Your task to perform on an android device: search for outdoor chairs on article.com Image 0: 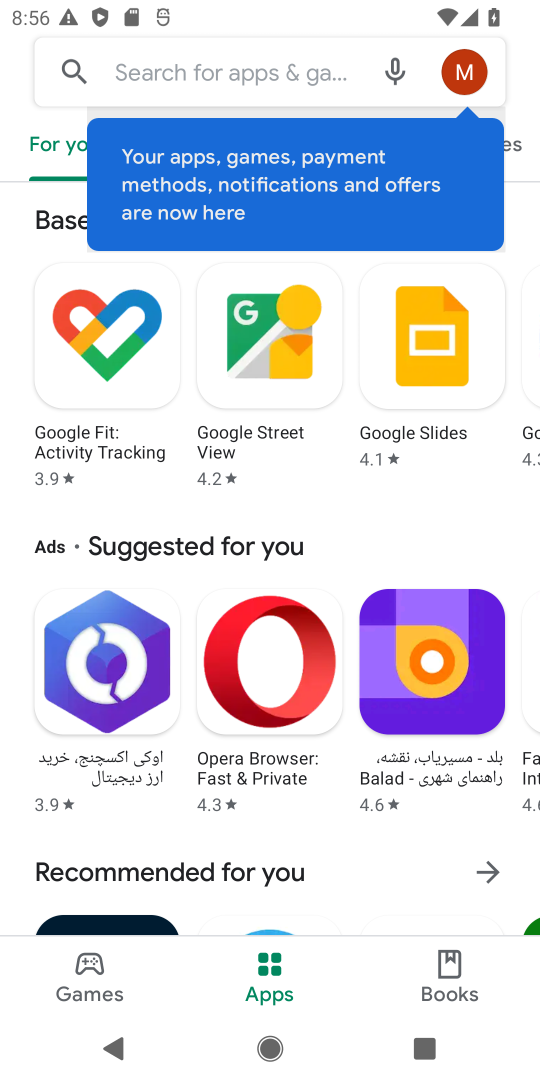
Step 0: press home button
Your task to perform on an android device: search for outdoor chairs on article.com Image 1: 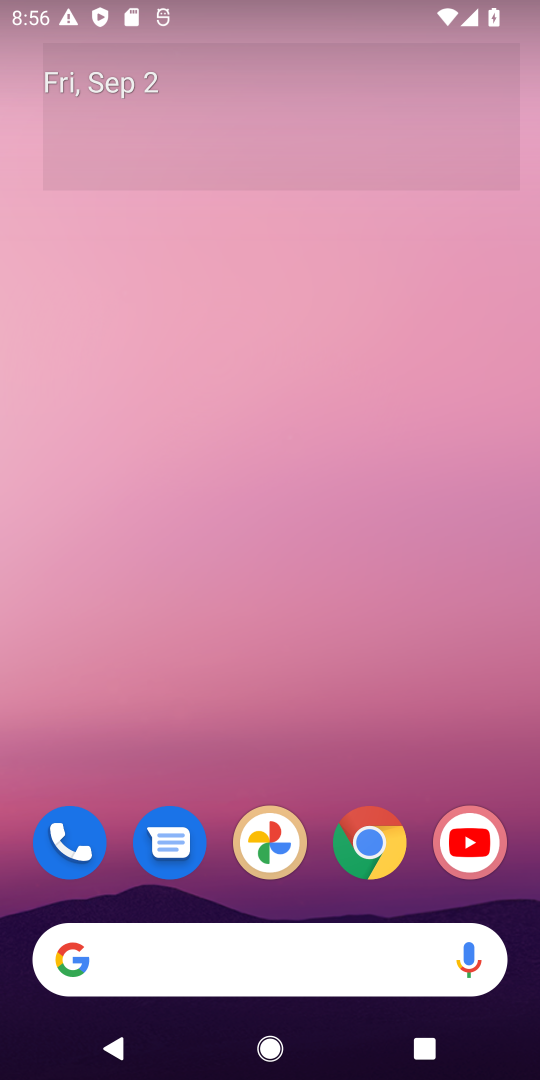
Step 1: drag from (275, 943) to (357, 11)
Your task to perform on an android device: search for outdoor chairs on article.com Image 2: 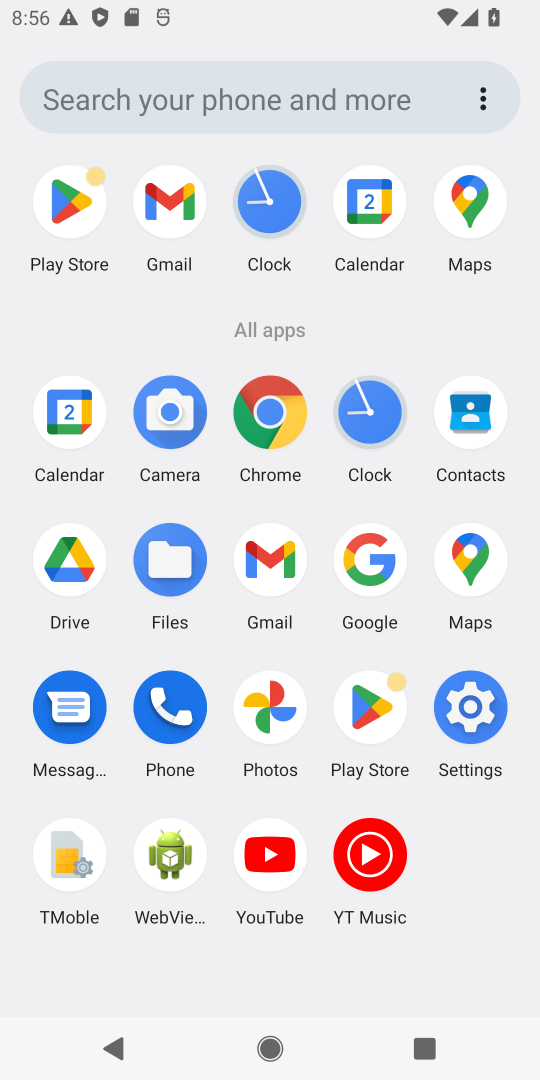
Step 2: click (270, 425)
Your task to perform on an android device: search for outdoor chairs on article.com Image 3: 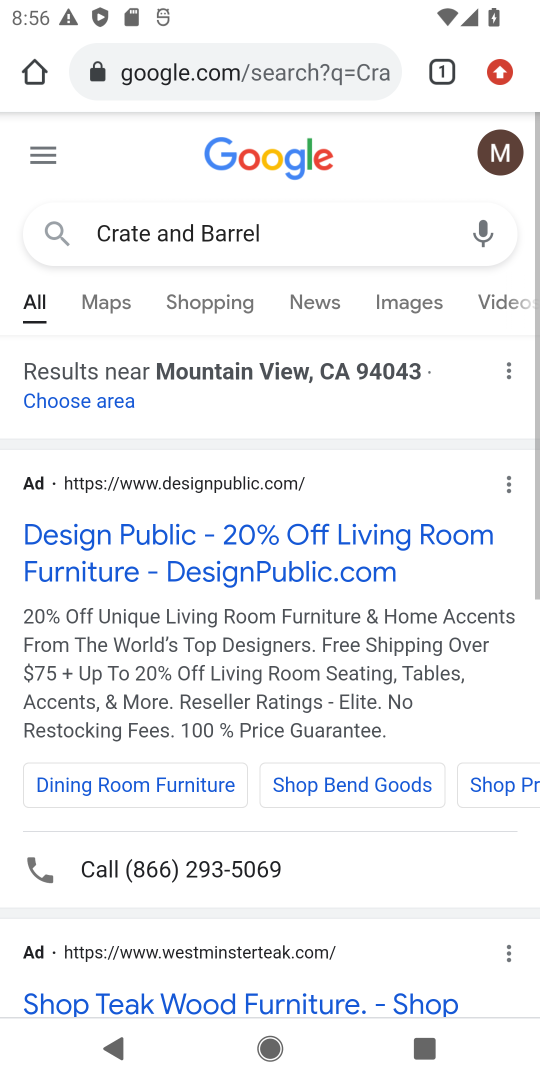
Step 3: click (269, 77)
Your task to perform on an android device: search for outdoor chairs on article.com Image 4: 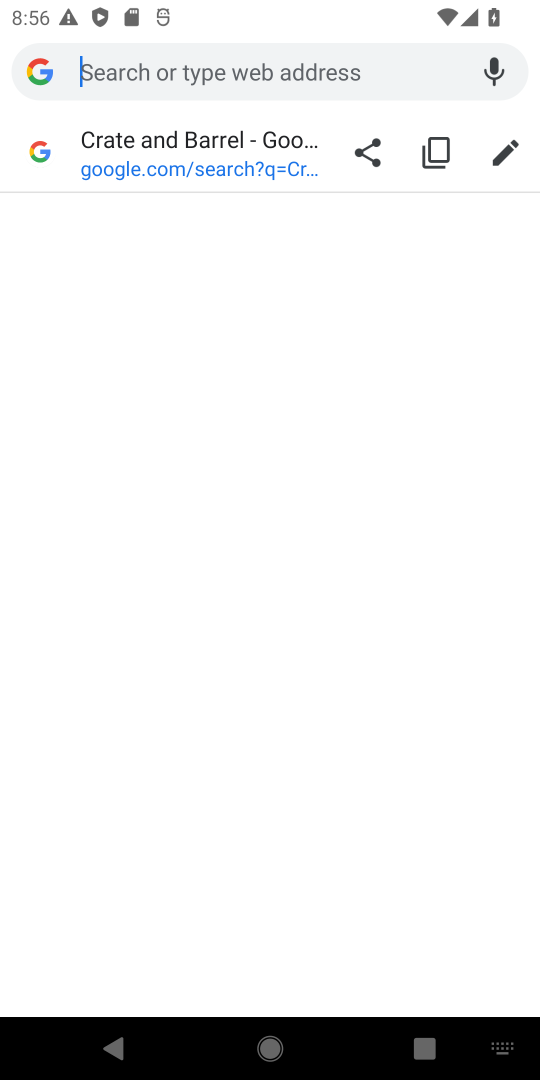
Step 4: type "article.com"
Your task to perform on an android device: search for outdoor chairs on article.com Image 5: 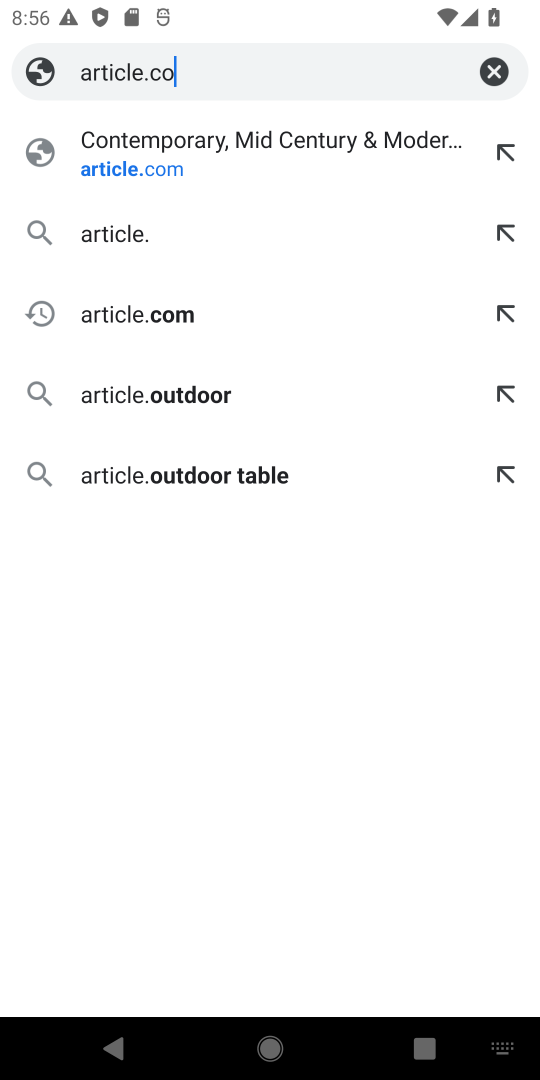
Step 5: press enter
Your task to perform on an android device: search for outdoor chairs on article.com Image 6: 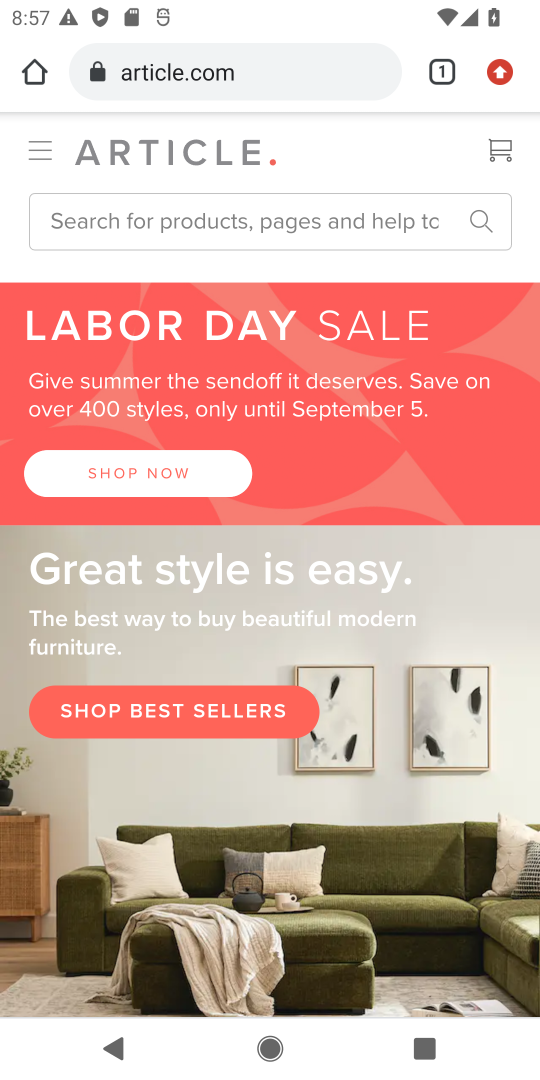
Step 6: click (219, 233)
Your task to perform on an android device: search for outdoor chairs on article.com Image 7: 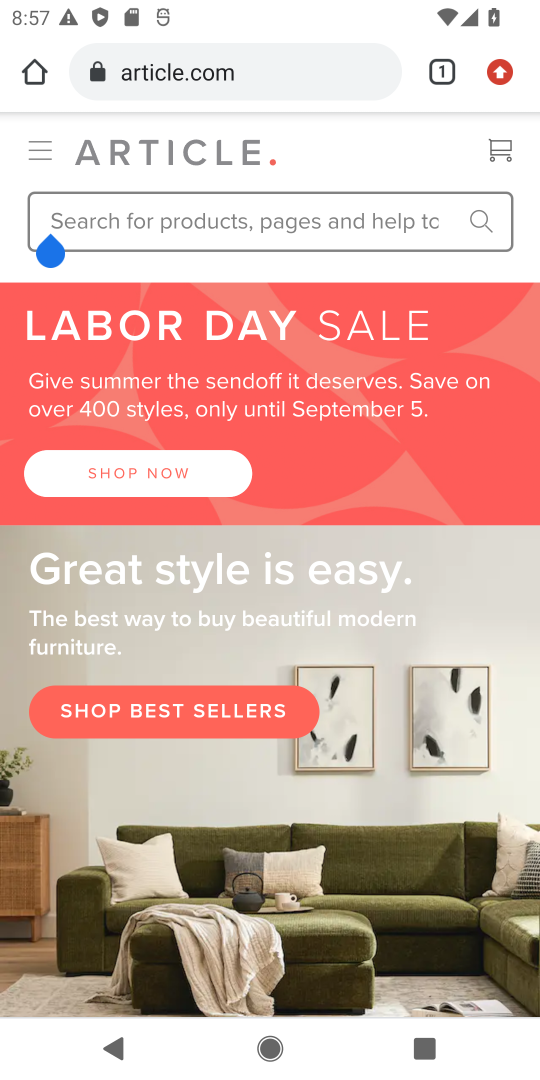
Step 7: type "outdoor chairs"
Your task to perform on an android device: search for outdoor chairs on article.com Image 8: 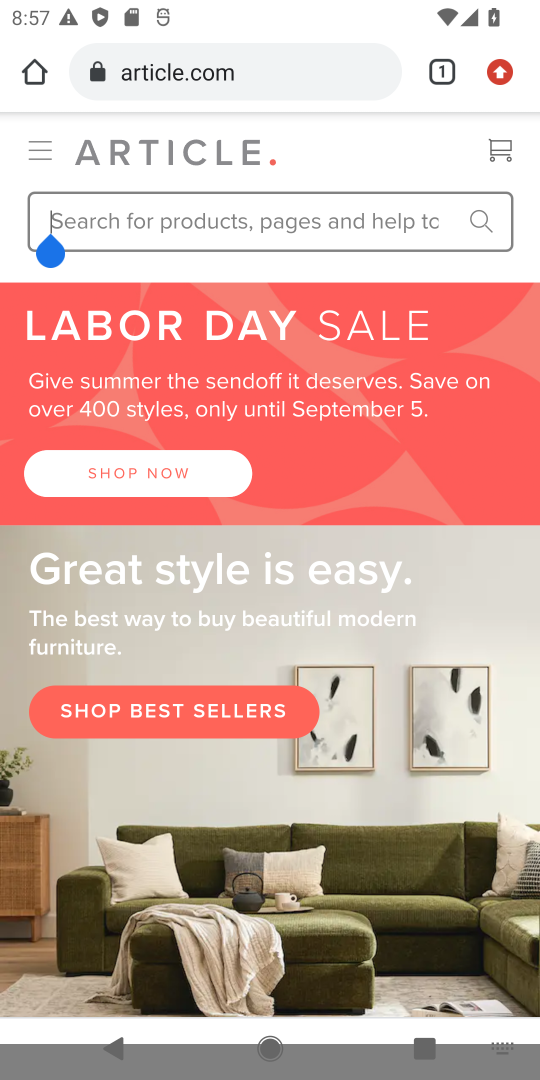
Step 8: press enter
Your task to perform on an android device: search for outdoor chairs on article.com Image 9: 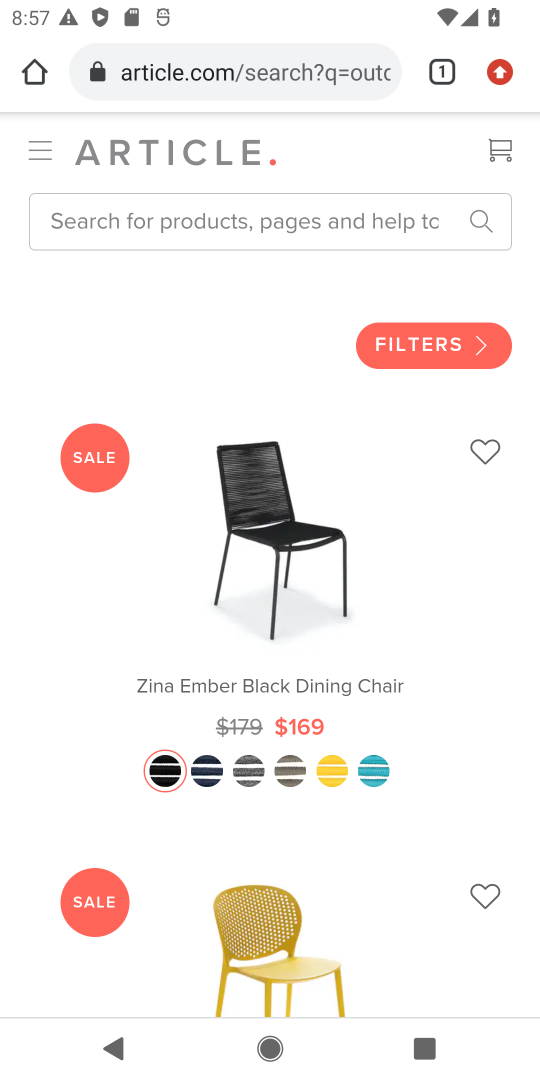
Step 9: task complete